Your task to perform on an android device: Open Youtube and go to the subscriptions tab Image 0: 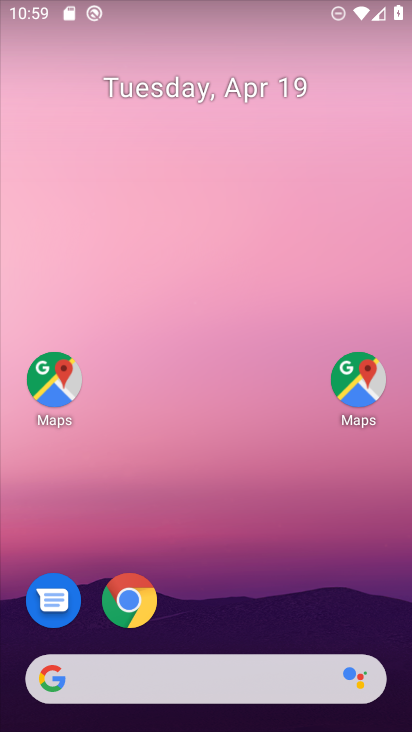
Step 0: drag from (228, 662) to (359, 13)
Your task to perform on an android device: Open Youtube and go to the subscriptions tab Image 1: 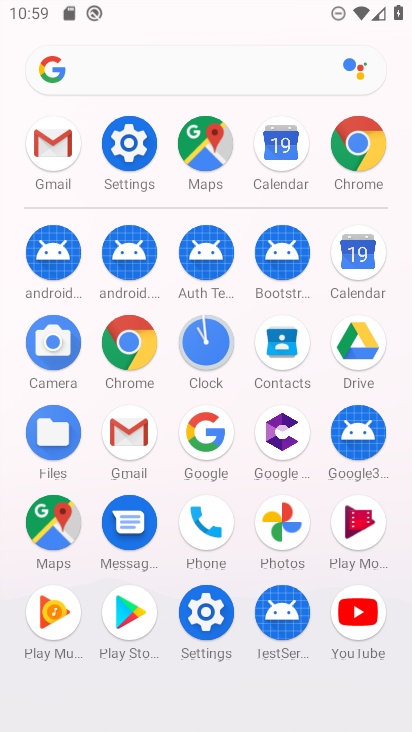
Step 1: click (358, 624)
Your task to perform on an android device: Open Youtube and go to the subscriptions tab Image 2: 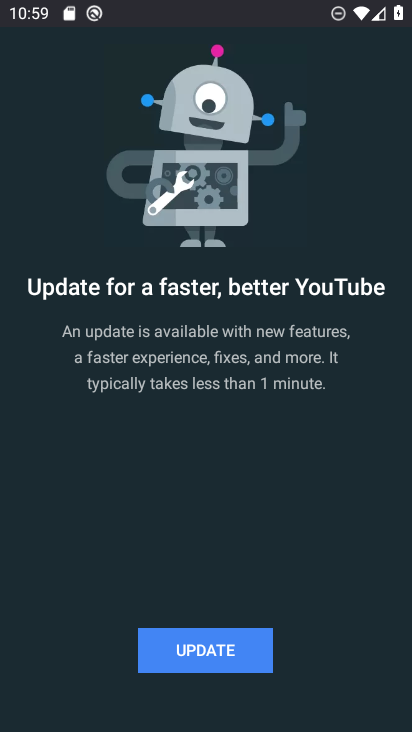
Step 2: click (237, 658)
Your task to perform on an android device: Open Youtube and go to the subscriptions tab Image 3: 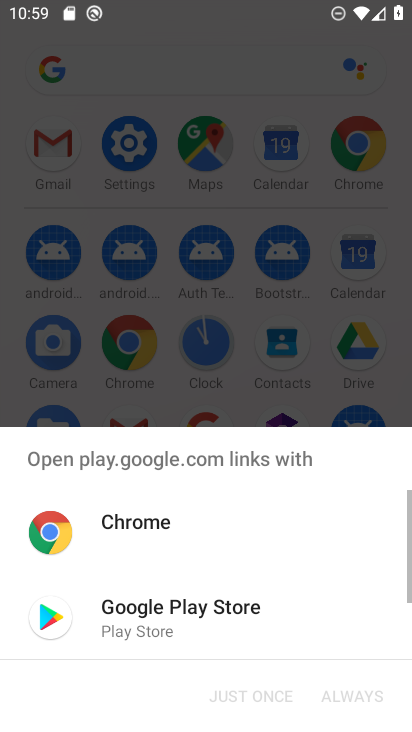
Step 3: click (179, 621)
Your task to perform on an android device: Open Youtube and go to the subscriptions tab Image 4: 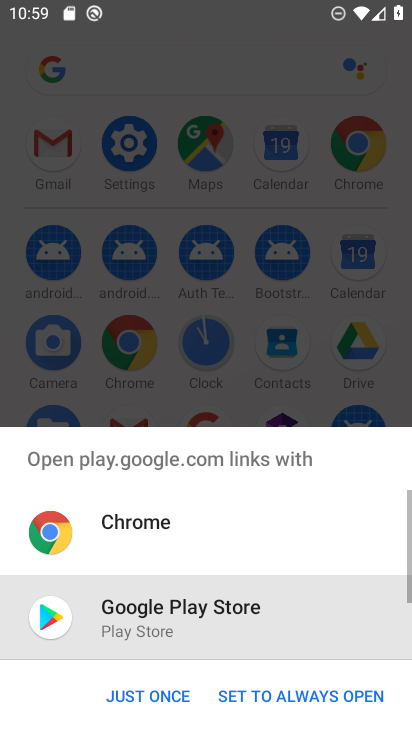
Step 4: click (155, 694)
Your task to perform on an android device: Open Youtube and go to the subscriptions tab Image 5: 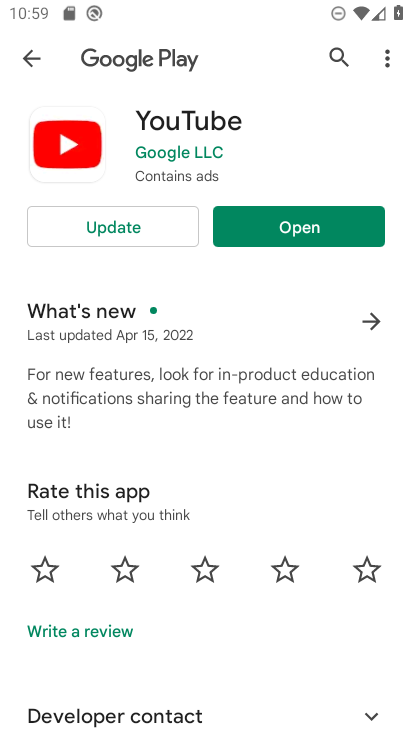
Step 5: click (144, 233)
Your task to perform on an android device: Open Youtube and go to the subscriptions tab Image 6: 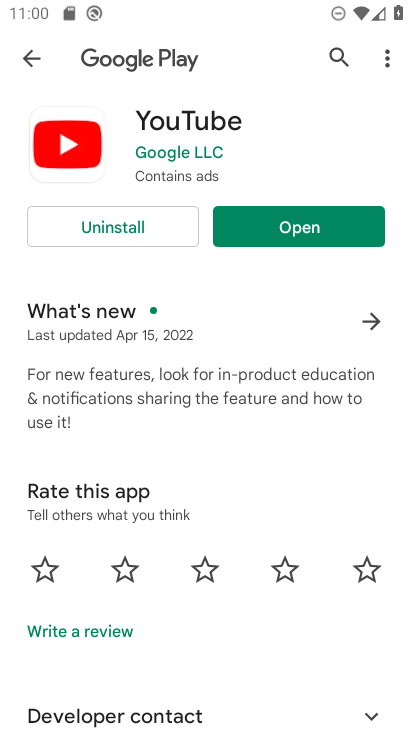
Step 6: click (320, 220)
Your task to perform on an android device: Open Youtube and go to the subscriptions tab Image 7: 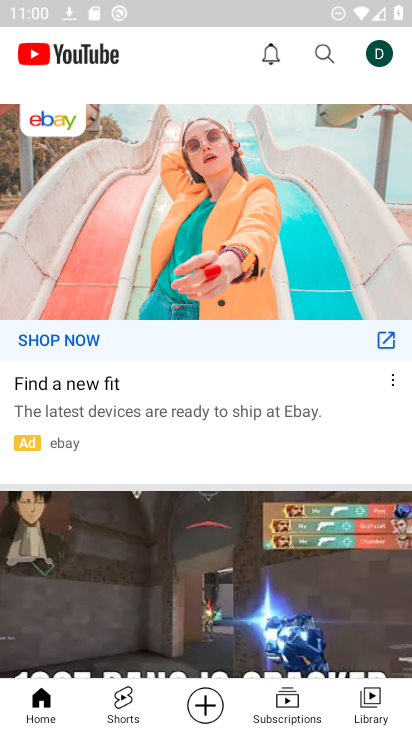
Step 7: click (282, 706)
Your task to perform on an android device: Open Youtube and go to the subscriptions tab Image 8: 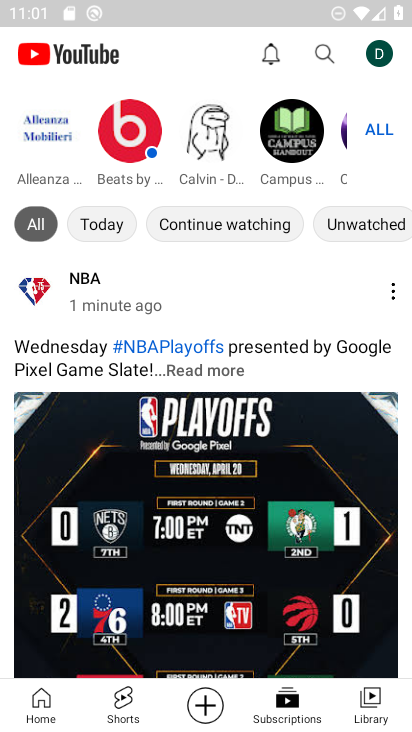
Step 8: task complete